Your task to perform on an android device: Open settings Image 0: 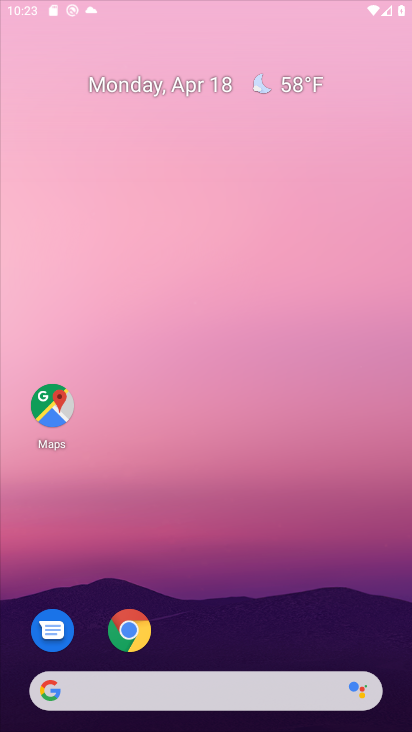
Step 0: drag from (230, 158) to (230, 94)
Your task to perform on an android device: Open settings Image 1: 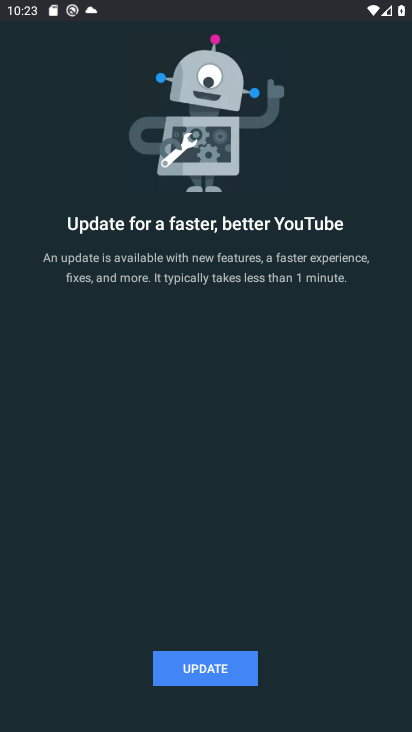
Step 1: click (229, 673)
Your task to perform on an android device: Open settings Image 2: 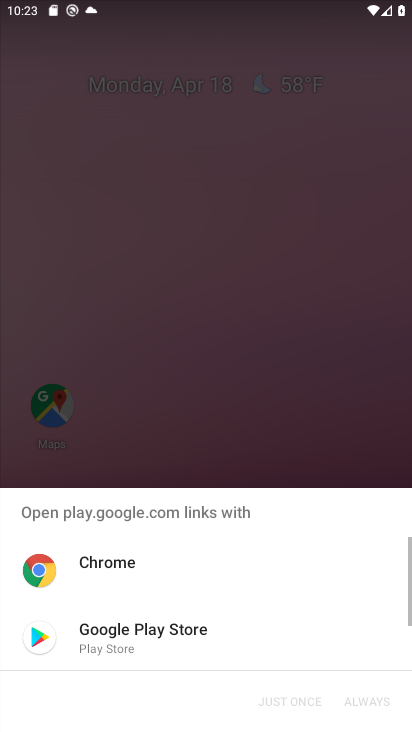
Step 2: click (174, 649)
Your task to perform on an android device: Open settings Image 3: 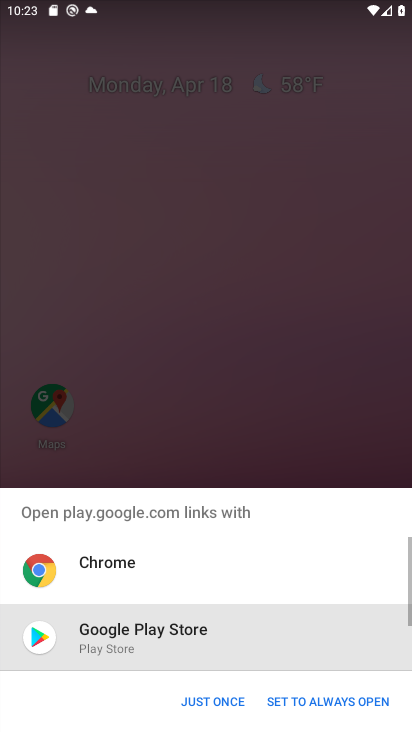
Step 3: click (199, 703)
Your task to perform on an android device: Open settings Image 4: 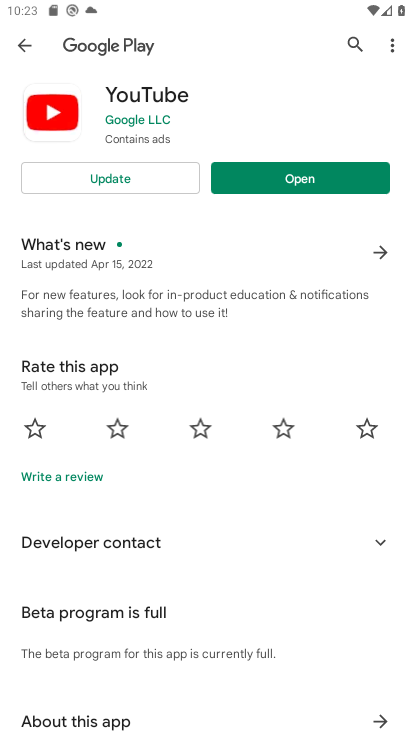
Step 4: click (146, 177)
Your task to perform on an android device: Open settings Image 5: 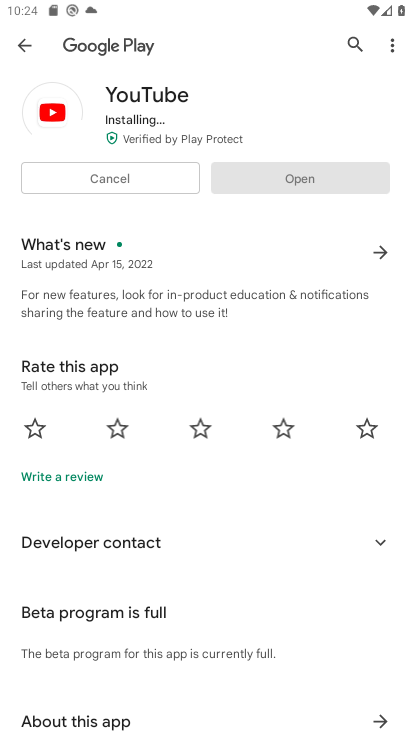
Step 5: press home button
Your task to perform on an android device: Open settings Image 6: 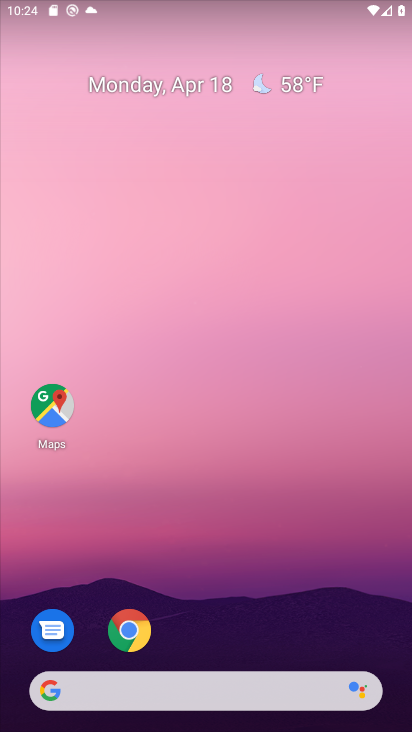
Step 6: drag from (216, 656) to (176, 0)
Your task to perform on an android device: Open settings Image 7: 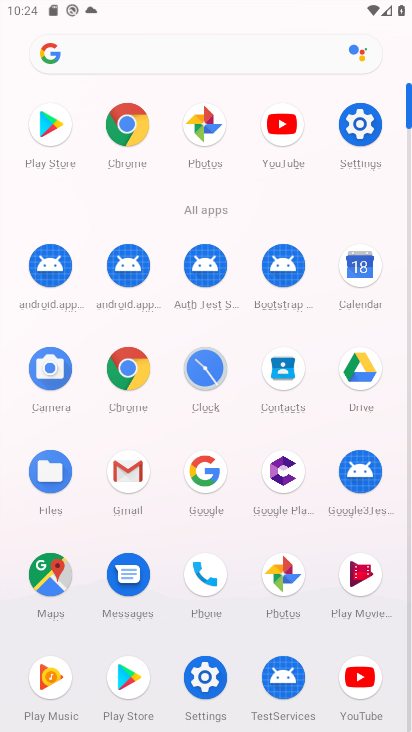
Step 7: click (354, 127)
Your task to perform on an android device: Open settings Image 8: 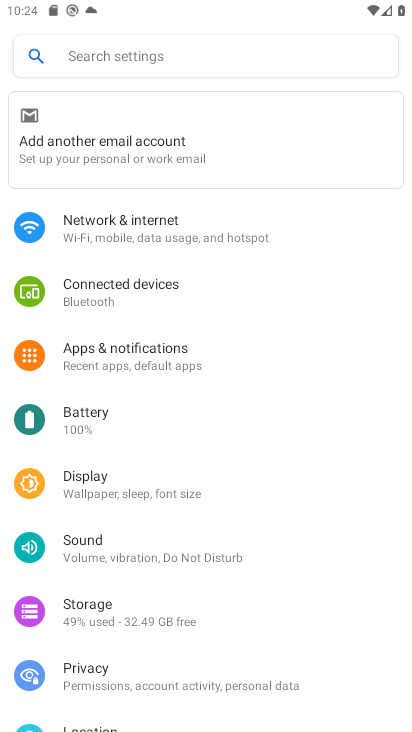
Step 8: task complete